Your task to perform on an android device: set default search engine in the chrome app Image 0: 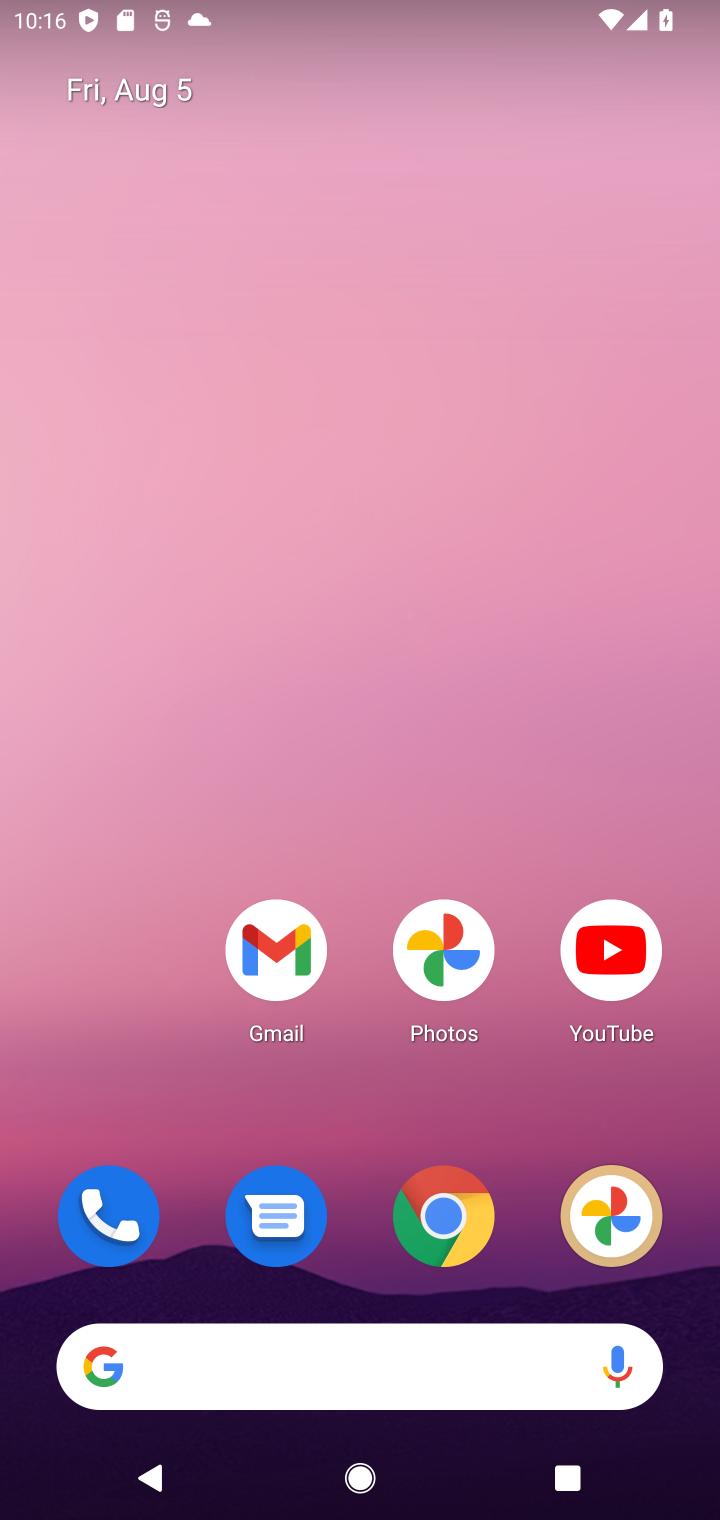
Step 0: drag from (417, 1330) to (464, 132)
Your task to perform on an android device: set default search engine in the chrome app Image 1: 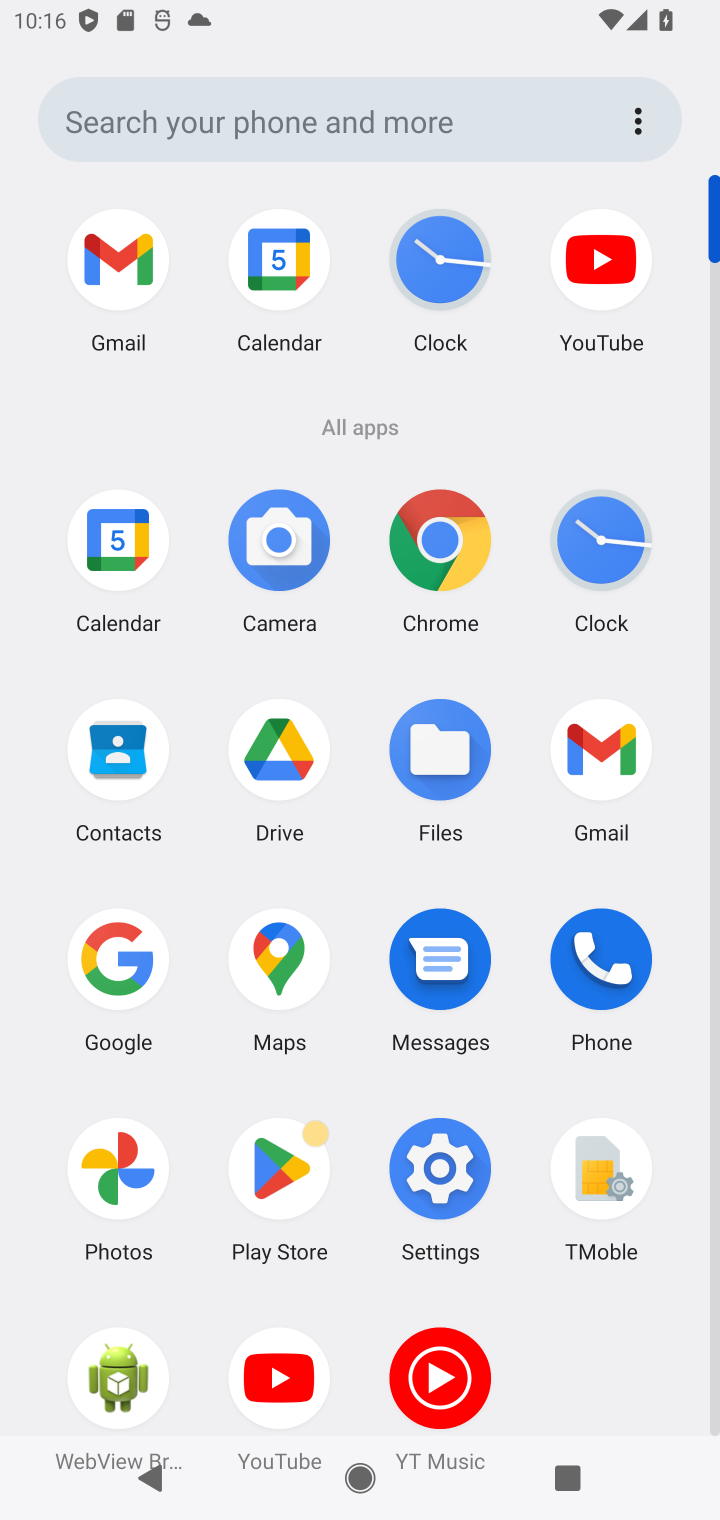
Step 1: click (438, 541)
Your task to perform on an android device: set default search engine in the chrome app Image 2: 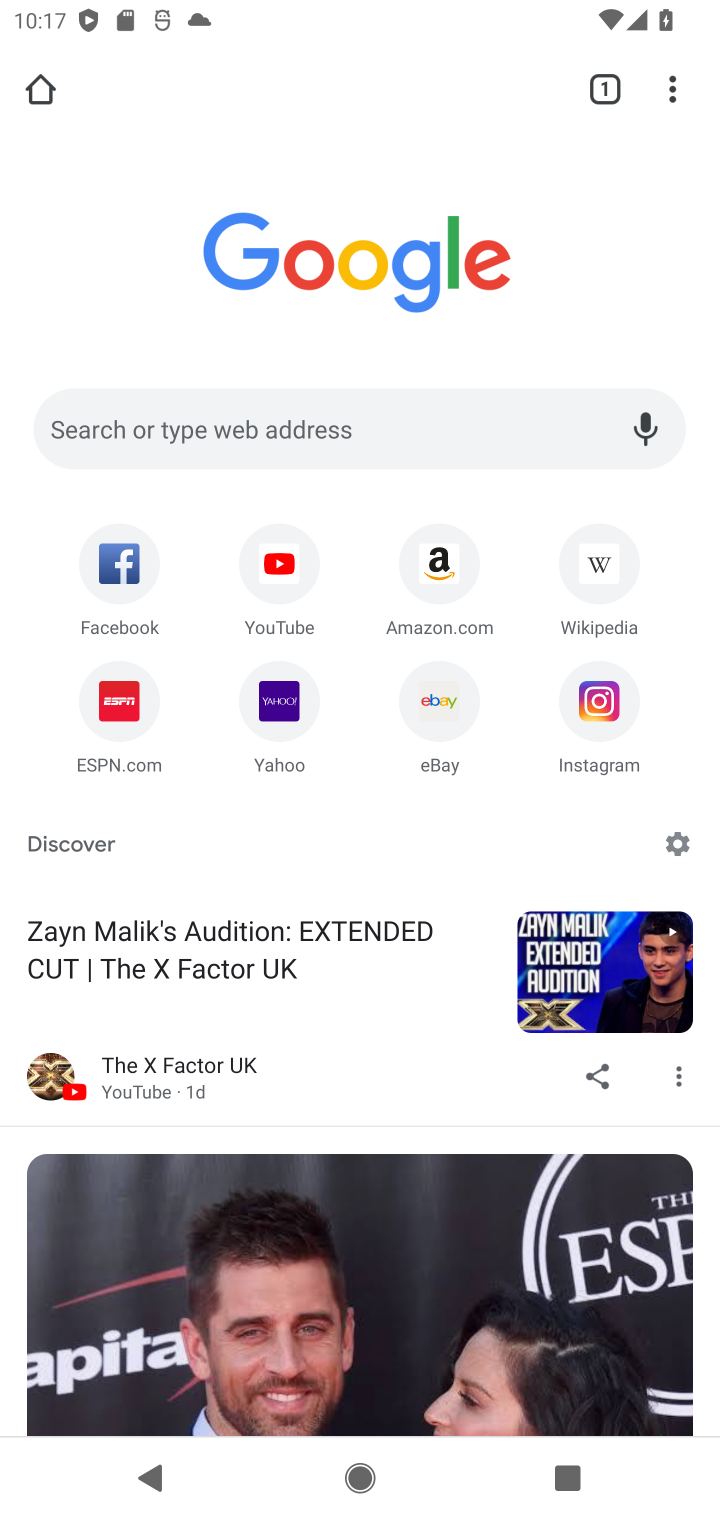
Step 2: drag from (668, 95) to (470, 797)
Your task to perform on an android device: set default search engine in the chrome app Image 3: 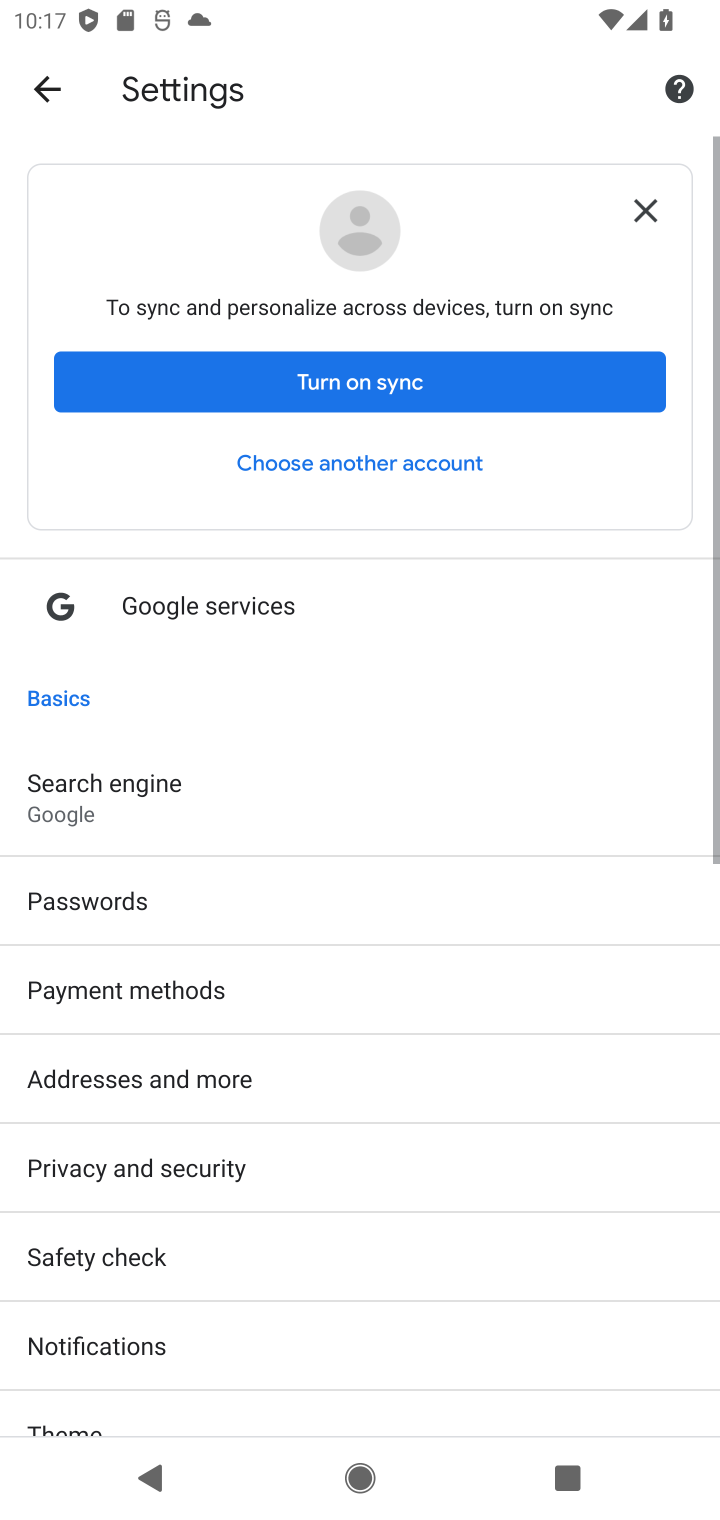
Step 3: click (257, 808)
Your task to perform on an android device: set default search engine in the chrome app Image 4: 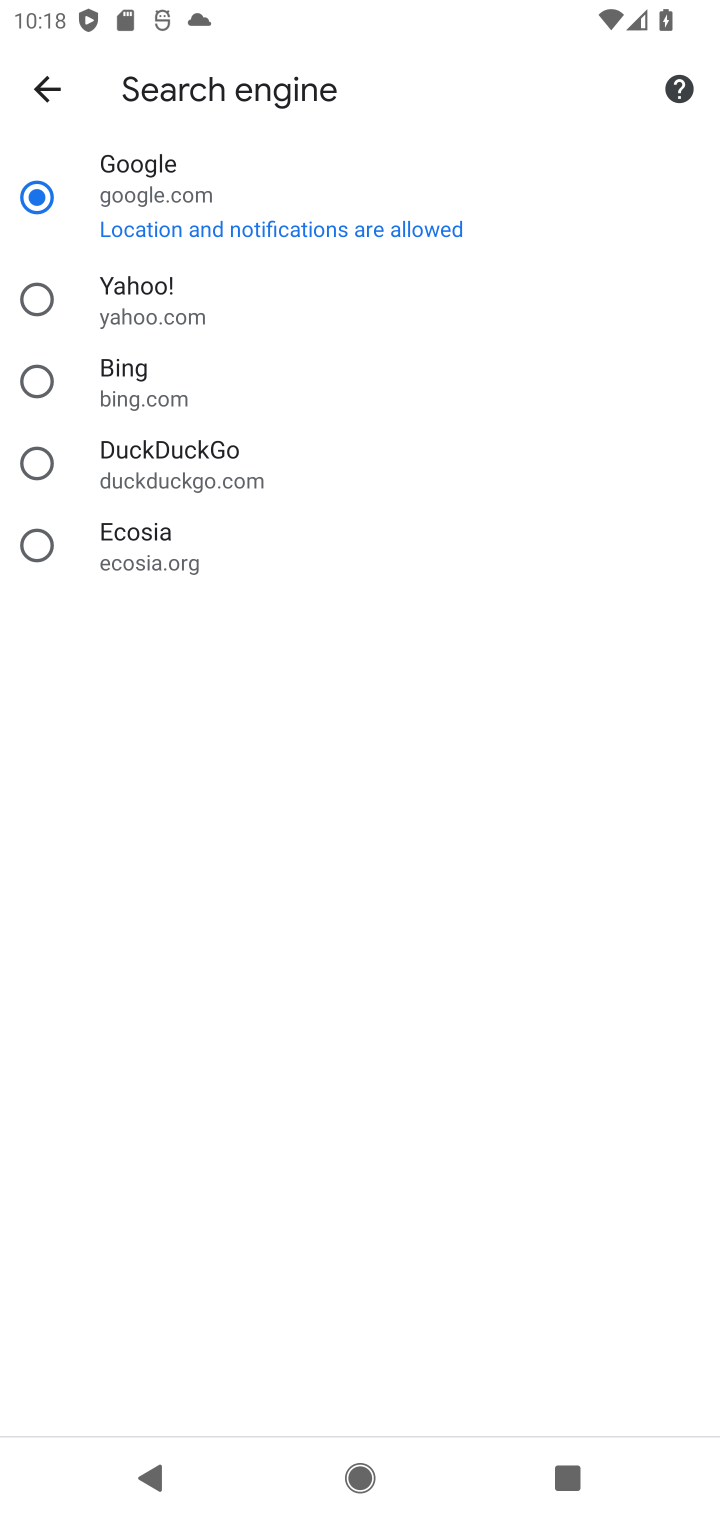
Step 4: task complete